Your task to perform on an android device: turn off smart reply in the gmail app Image 0: 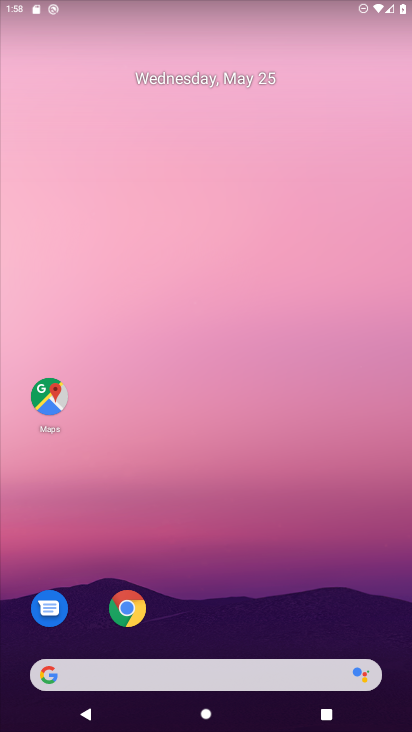
Step 0: drag from (237, 658) to (275, 197)
Your task to perform on an android device: turn off smart reply in the gmail app Image 1: 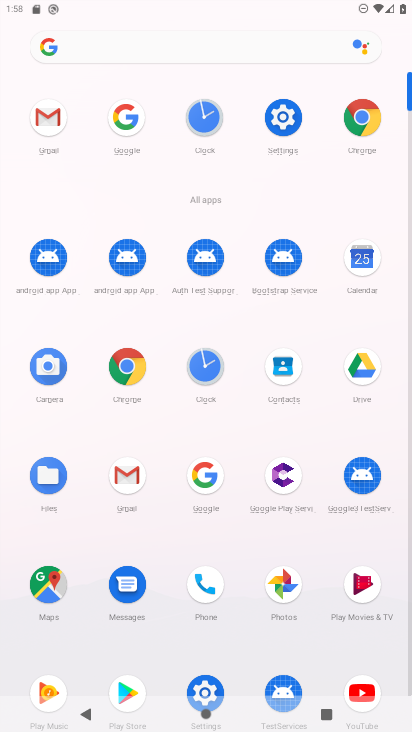
Step 1: click (58, 118)
Your task to perform on an android device: turn off smart reply in the gmail app Image 2: 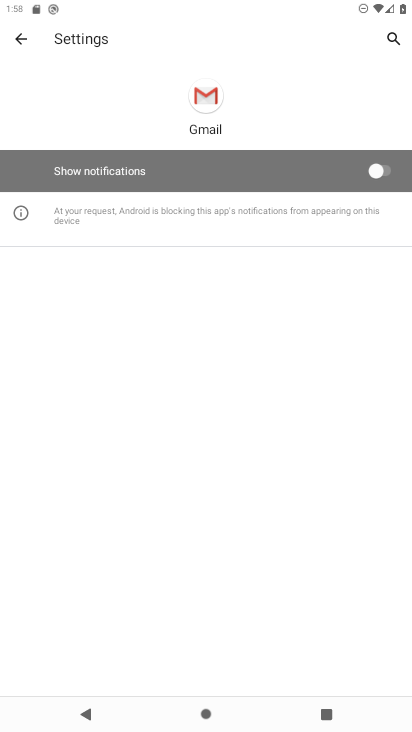
Step 2: click (18, 35)
Your task to perform on an android device: turn off smart reply in the gmail app Image 3: 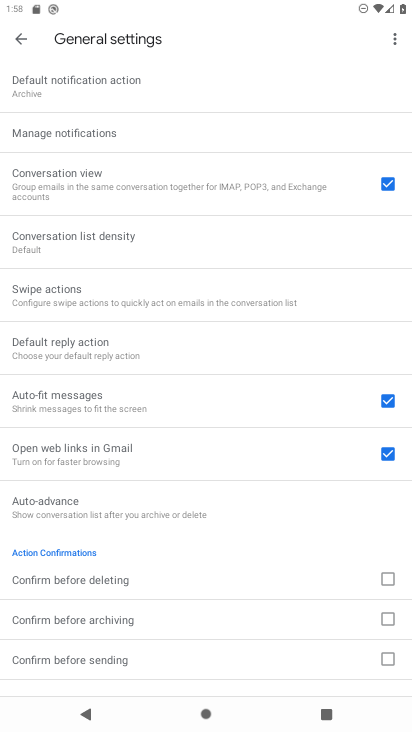
Step 3: click (20, 47)
Your task to perform on an android device: turn off smart reply in the gmail app Image 4: 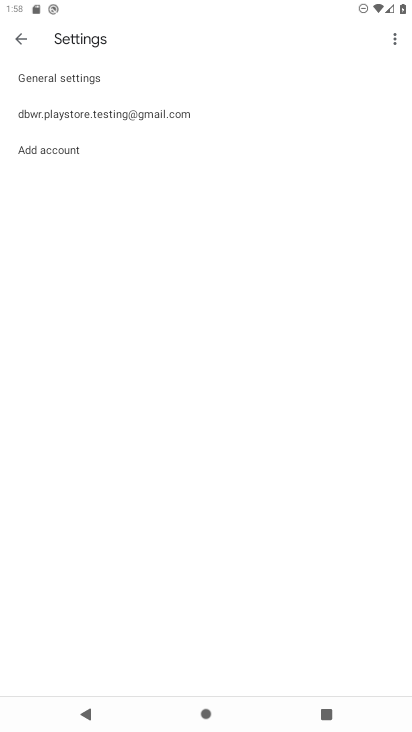
Step 4: click (48, 118)
Your task to perform on an android device: turn off smart reply in the gmail app Image 5: 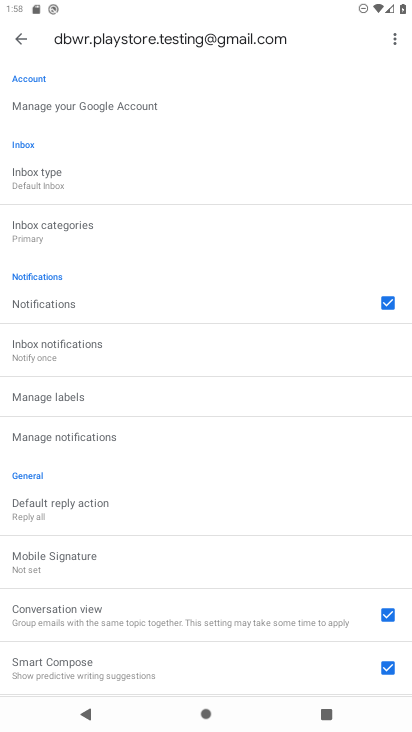
Step 5: drag from (62, 687) to (113, 320)
Your task to perform on an android device: turn off smart reply in the gmail app Image 6: 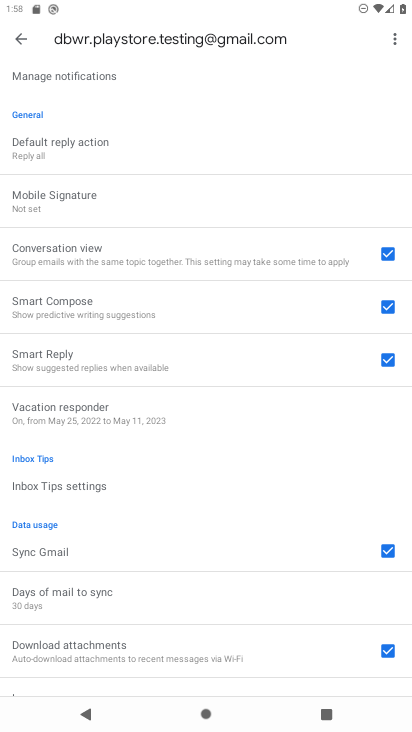
Step 6: click (389, 360)
Your task to perform on an android device: turn off smart reply in the gmail app Image 7: 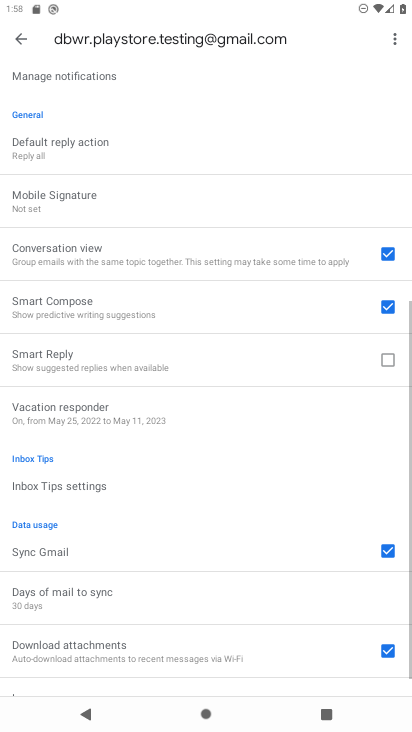
Step 7: task complete